Your task to perform on an android device: allow notifications from all sites in the chrome app Image 0: 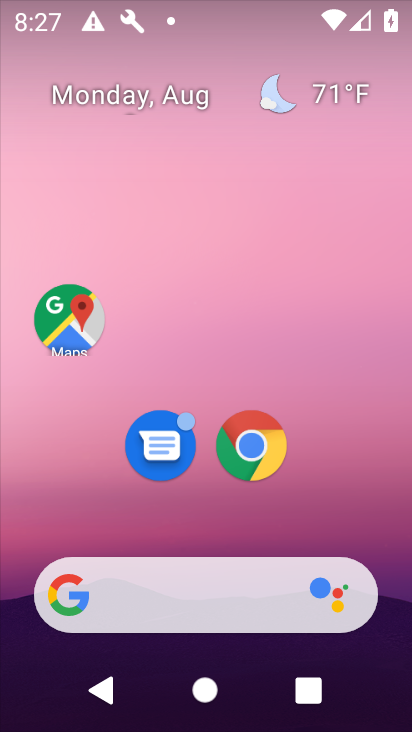
Step 0: drag from (250, 511) to (206, 220)
Your task to perform on an android device: allow notifications from all sites in the chrome app Image 1: 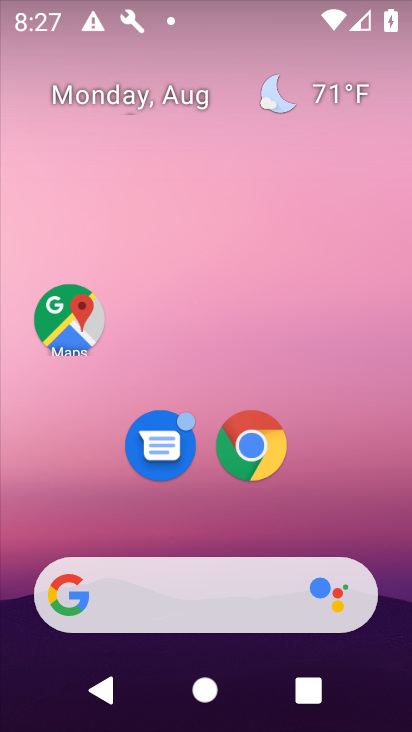
Step 1: drag from (223, 559) to (194, 203)
Your task to perform on an android device: allow notifications from all sites in the chrome app Image 2: 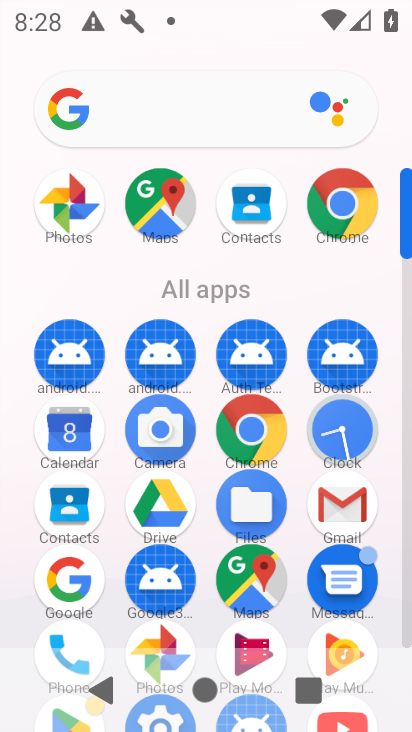
Step 2: click (341, 210)
Your task to perform on an android device: allow notifications from all sites in the chrome app Image 3: 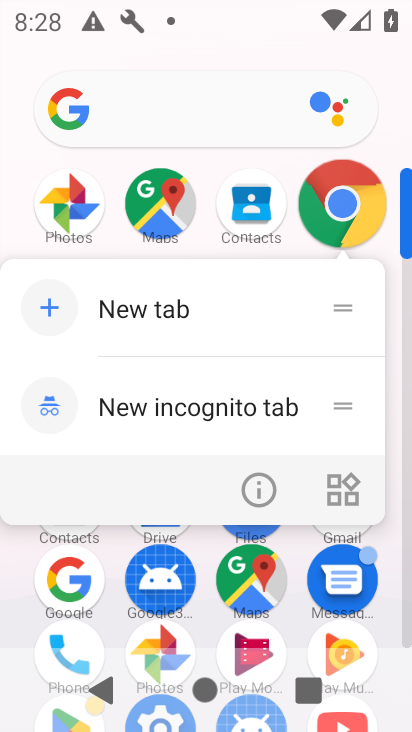
Step 3: click (340, 210)
Your task to perform on an android device: allow notifications from all sites in the chrome app Image 4: 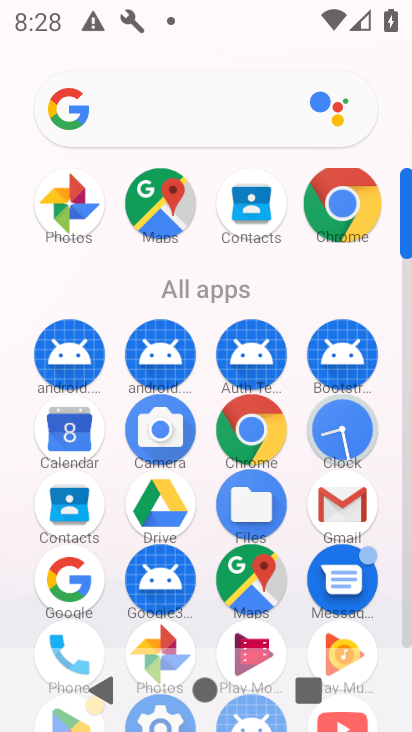
Step 4: click (340, 210)
Your task to perform on an android device: allow notifications from all sites in the chrome app Image 5: 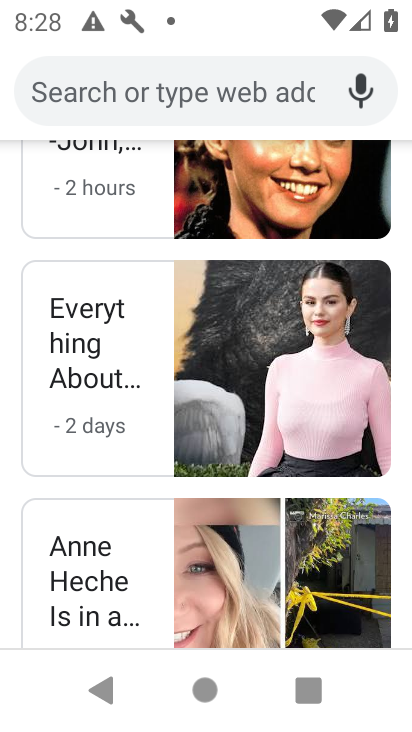
Step 5: drag from (245, 248) to (223, 642)
Your task to perform on an android device: allow notifications from all sites in the chrome app Image 6: 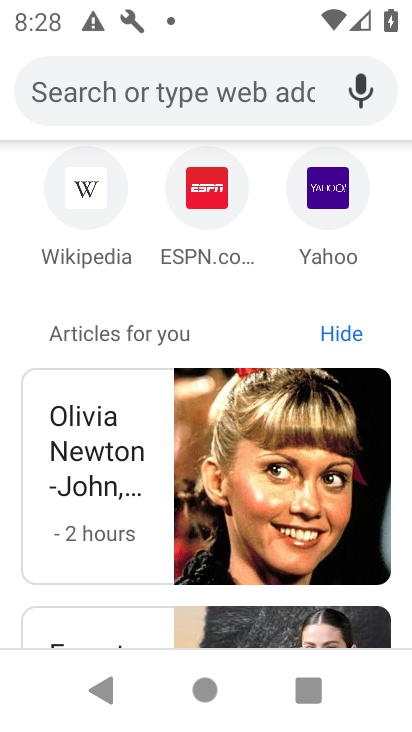
Step 6: drag from (204, 660) to (277, 582)
Your task to perform on an android device: allow notifications from all sites in the chrome app Image 7: 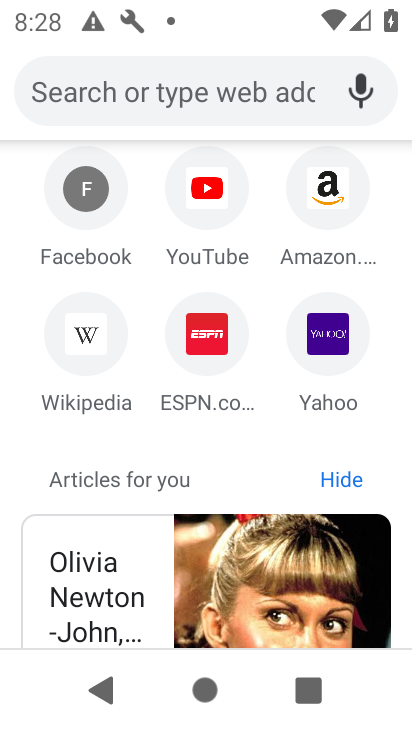
Step 7: drag from (240, 210) to (282, 550)
Your task to perform on an android device: allow notifications from all sites in the chrome app Image 8: 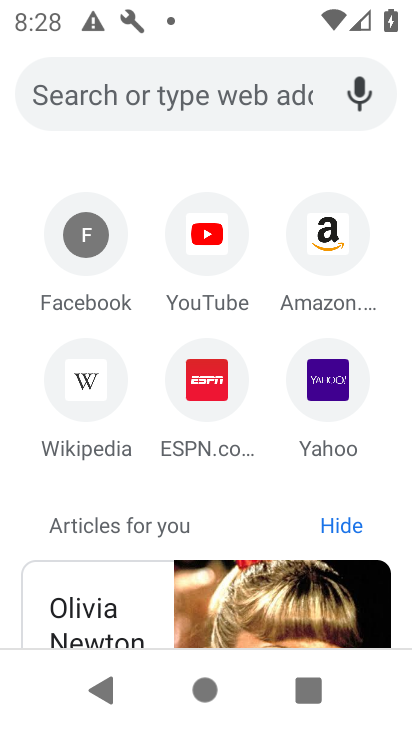
Step 8: drag from (246, 126) to (252, 527)
Your task to perform on an android device: allow notifications from all sites in the chrome app Image 9: 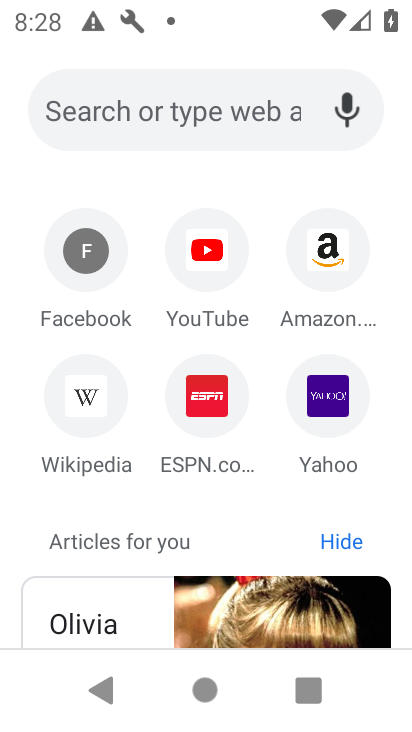
Step 9: click (242, 455)
Your task to perform on an android device: allow notifications from all sites in the chrome app Image 10: 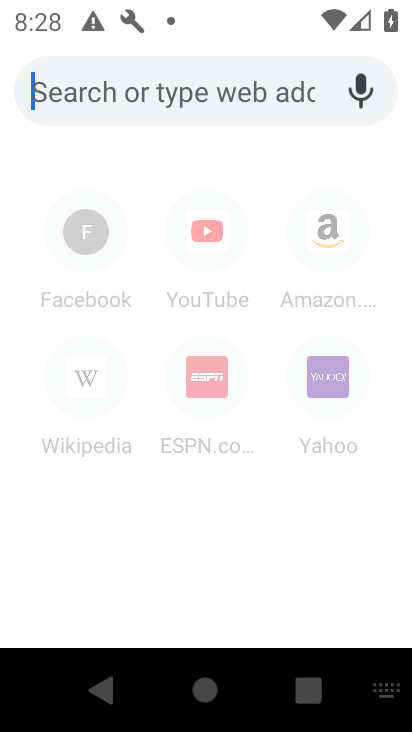
Step 10: drag from (253, 117) to (250, 565)
Your task to perform on an android device: allow notifications from all sites in the chrome app Image 11: 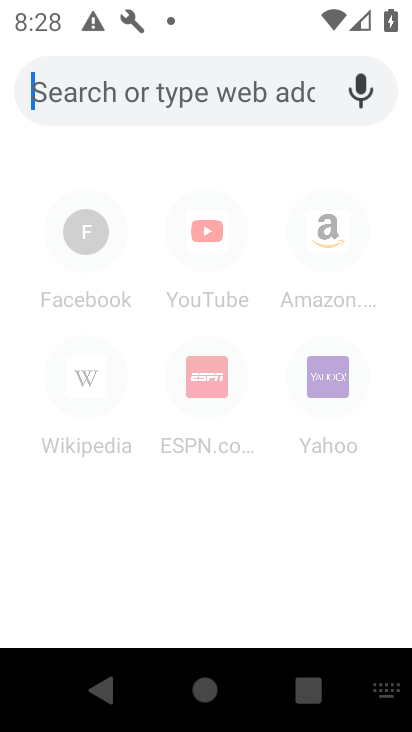
Step 11: drag from (276, 179) to (293, 591)
Your task to perform on an android device: allow notifications from all sites in the chrome app Image 12: 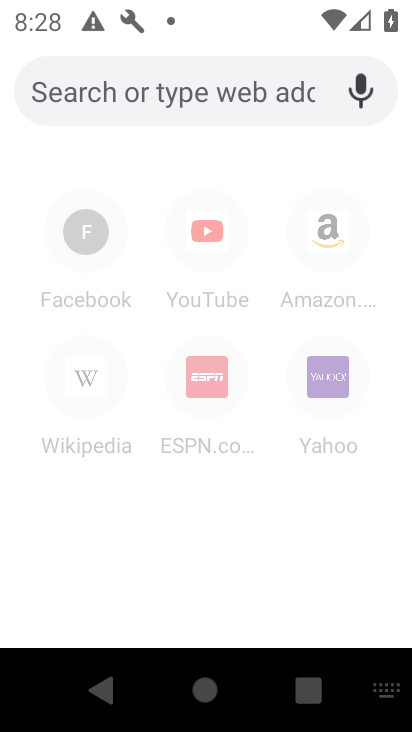
Step 12: drag from (216, 218) to (314, 430)
Your task to perform on an android device: allow notifications from all sites in the chrome app Image 13: 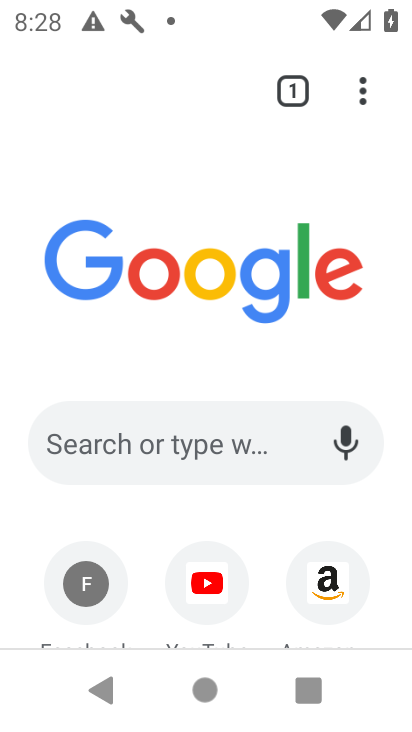
Step 13: drag from (363, 89) to (90, 478)
Your task to perform on an android device: allow notifications from all sites in the chrome app Image 14: 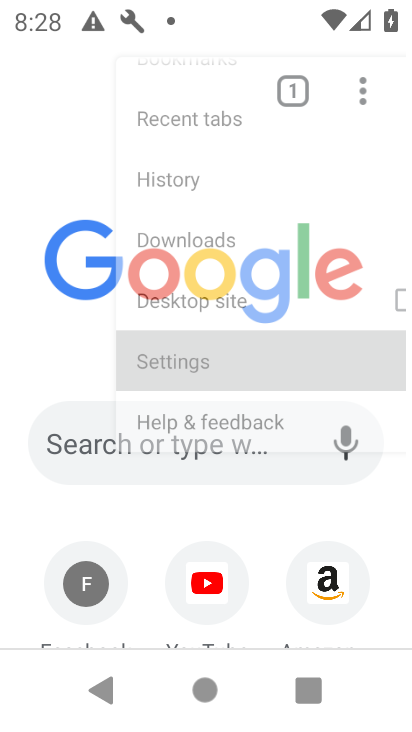
Step 14: click (91, 483)
Your task to perform on an android device: allow notifications from all sites in the chrome app Image 15: 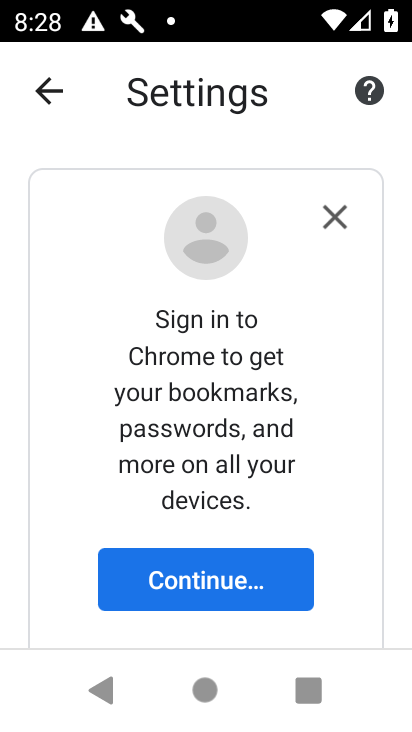
Step 15: click (337, 202)
Your task to perform on an android device: allow notifications from all sites in the chrome app Image 16: 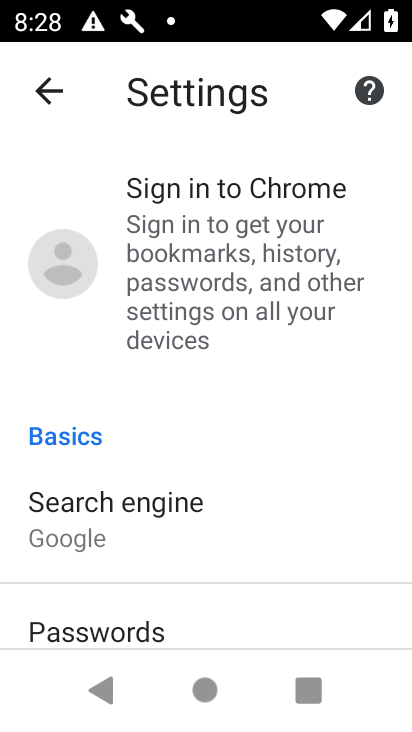
Step 16: drag from (186, 462) to (175, 168)
Your task to perform on an android device: allow notifications from all sites in the chrome app Image 17: 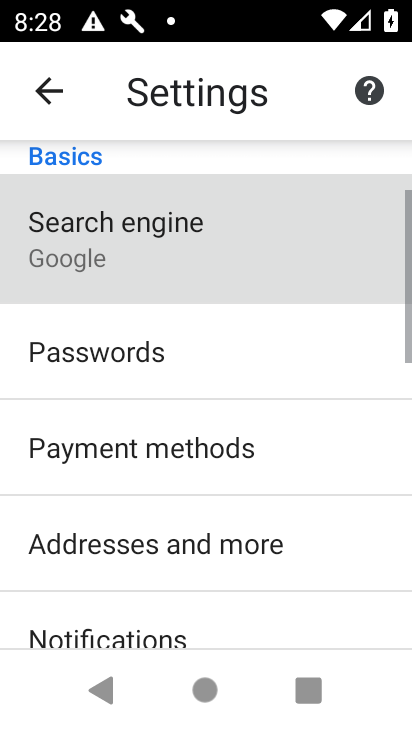
Step 17: click (151, 231)
Your task to perform on an android device: allow notifications from all sites in the chrome app Image 18: 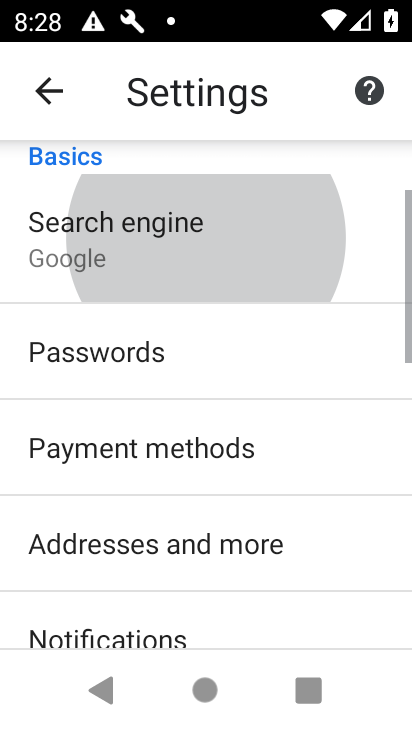
Step 18: drag from (203, 467) to (203, 169)
Your task to perform on an android device: allow notifications from all sites in the chrome app Image 19: 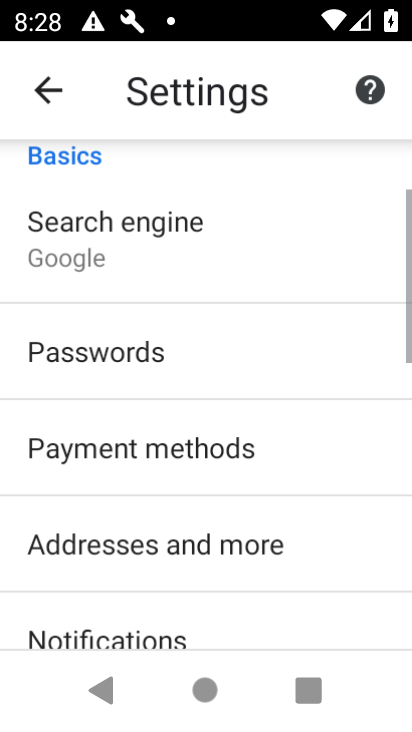
Step 19: drag from (211, 468) to (155, 222)
Your task to perform on an android device: allow notifications from all sites in the chrome app Image 20: 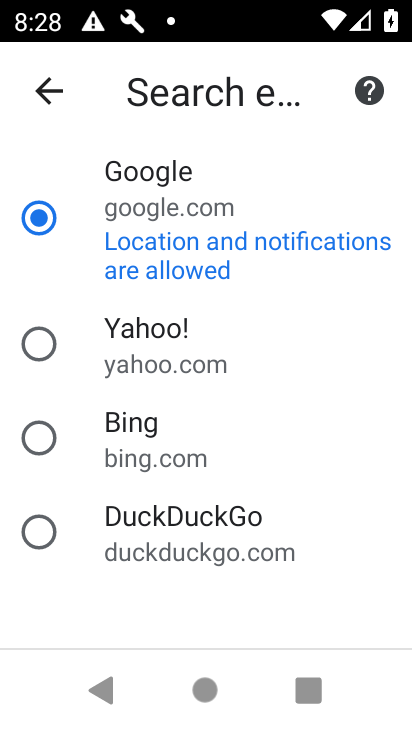
Step 20: click (39, 81)
Your task to perform on an android device: allow notifications from all sites in the chrome app Image 21: 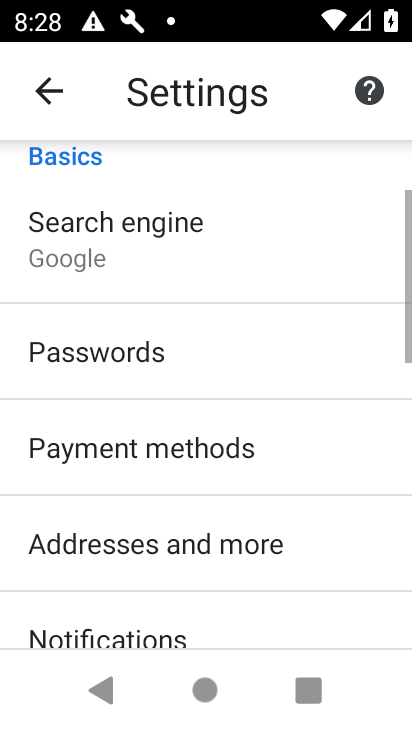
Step 21: drag from (92, 350) to (89, 241)
Your task to perform on an android device: allow notifications from all sites in the chrome app Image 22: 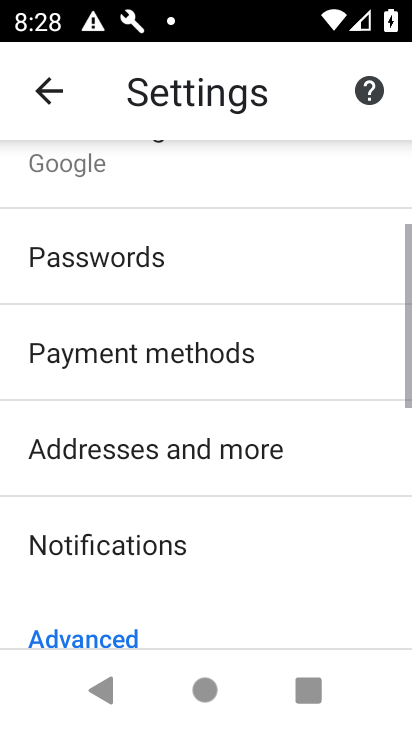
Step 22: drag from (152, 497) to (144, 197)
Your task to perform on an android device: allow notifications from all sites in the chrome app Image 23: 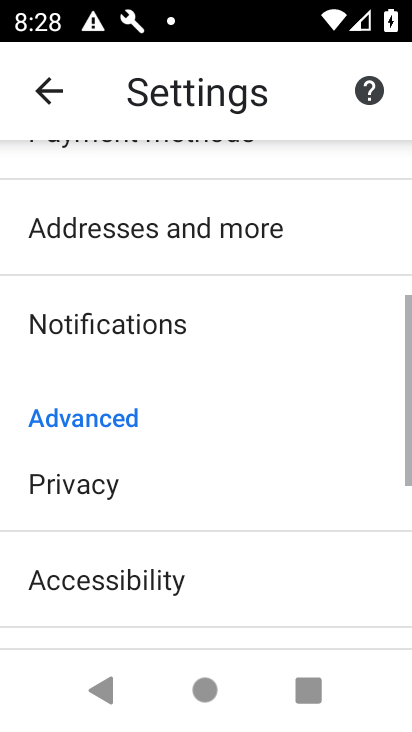
Step 23: drag from (148, 459) to (148, 258)
Your task to perform on an android device: allow notifications from all sites in the chrome app Image 24: 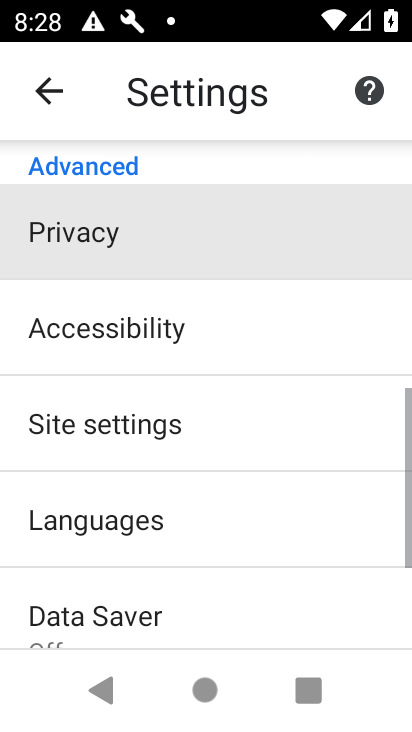
Step 24: drag from (143, 438) to (143, 225)
Your task to perform on an android device: allow notifications from all sites in the chrome app Image 25: 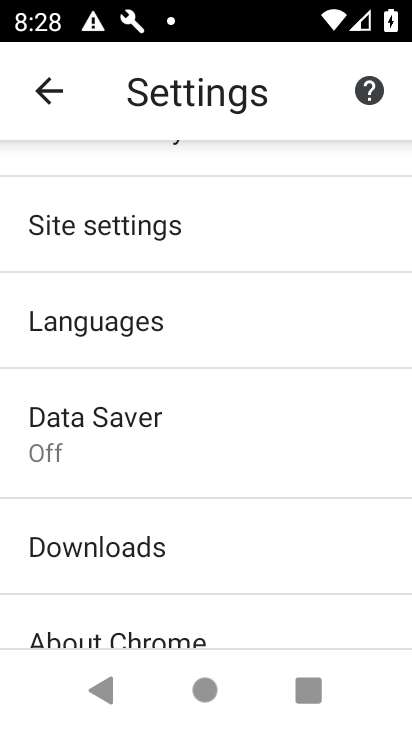
Step 25: click (87, 233)
Your task to perform on an android device: allow notifications from all sites in the chrome app Image 26: 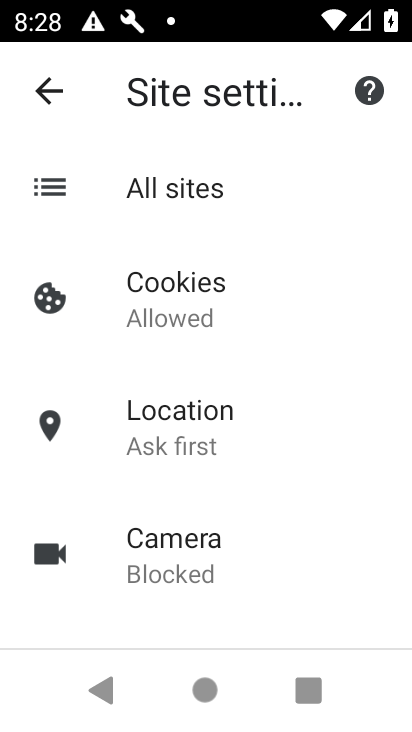
Step 26: drag from (196, 379) to (166, 215)
Your task to perform on an android device: allow notifications from all sites in the chrome app Image 27: 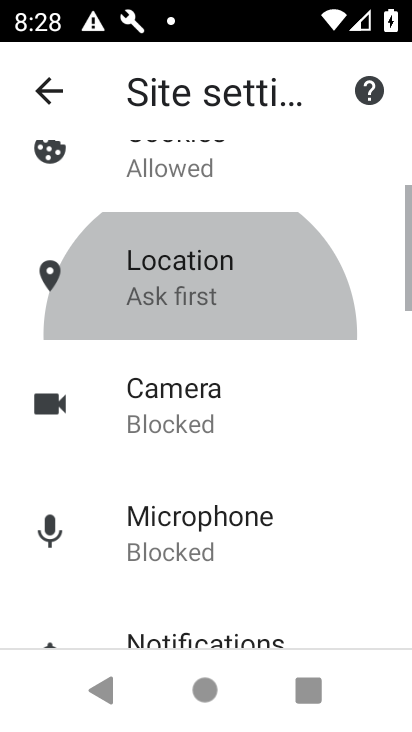
Step 27: drag from (179, 470) to (144, 200)
Your task to perform on an android device: allow notifications from all sites in the chrome app Image 28: 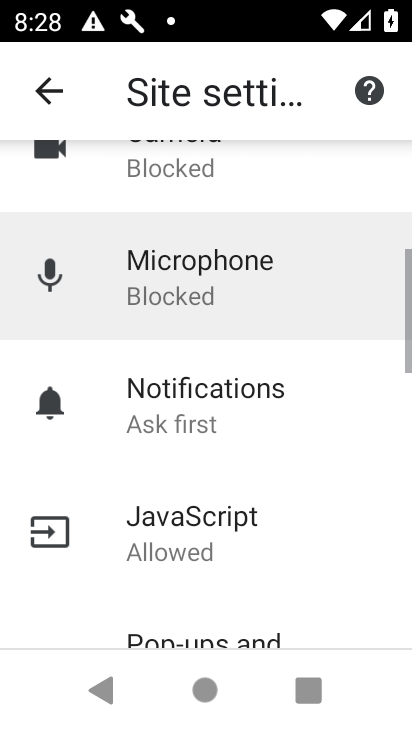
Step 28: drag from (183, 474) to (155, 275)
Your task to perform on an android device: allow notifications from all sites in the chrome app Image 29: 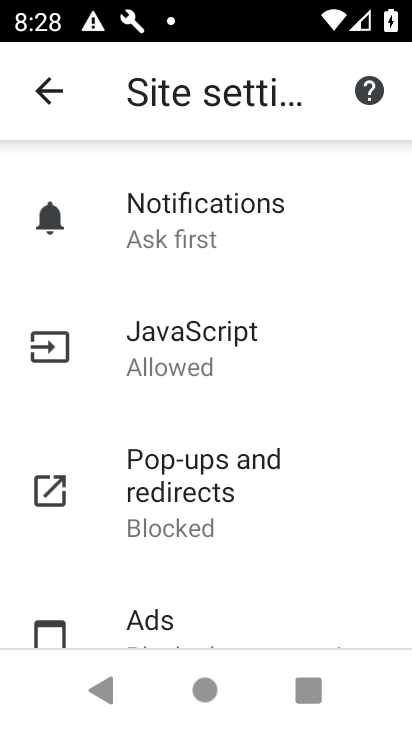
Step 29: click (181, 221)
Your task to perform on an android device: allow notifications from all sites in the chrome app Image 30: 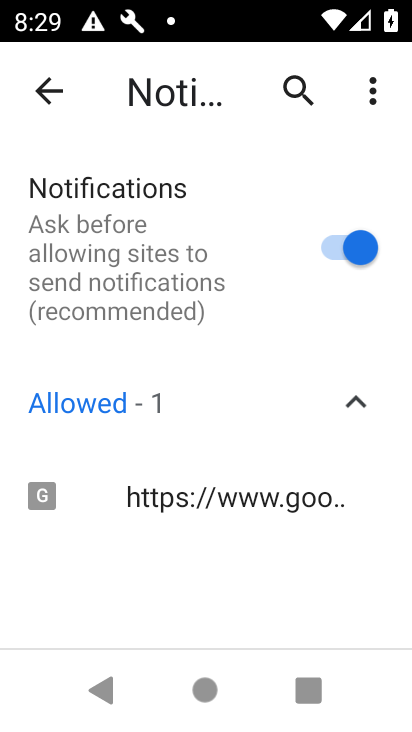
Step 30: task complete